Your task to perform on an android device: toggle priority inbox in the gmail app Image 0: 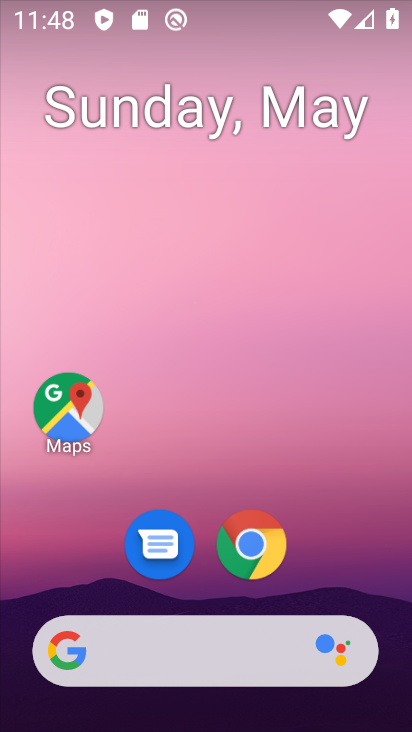
Step 0: drag from (353, 626) to (335, 1)
Your task to perform on an android device: toggle priority inbox in the gmail app Image 1: 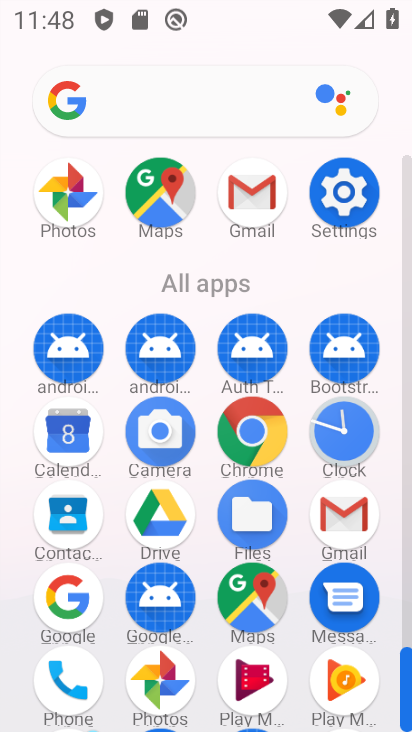
Step 1: click (355, 498)
Your task to perform on an android device: toggle priority inbox in the gmail app Image 2: 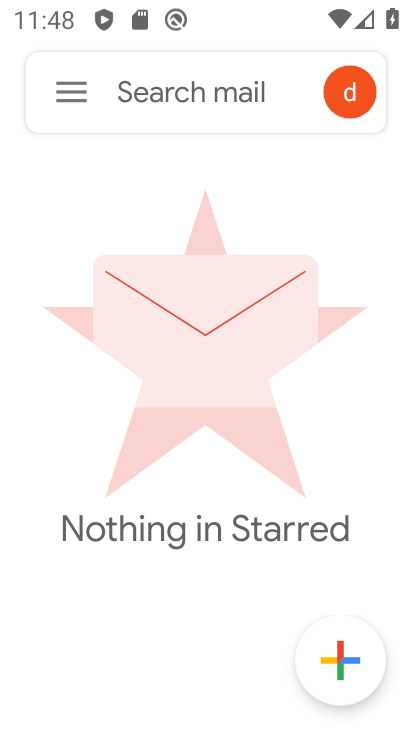
Step 2: click (77, 93)
Your task to perform on an android device: toggle priority inbox in the gmail app Image 3: 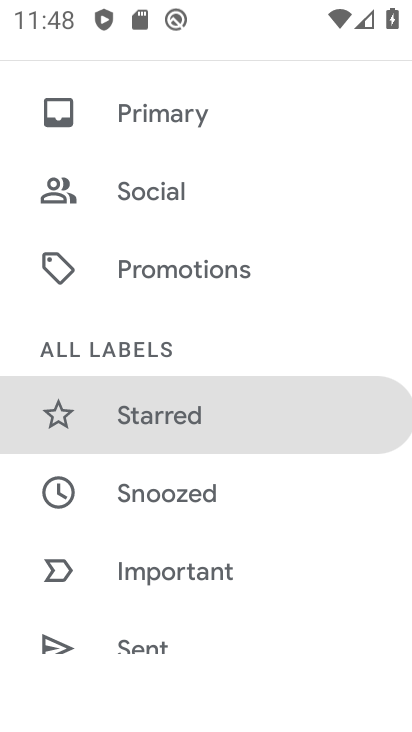
Step 3: drag from (197, 619) to (169, 47)
Your task to perform on an android device: toggle priority inbox in the gmail app Image 4: 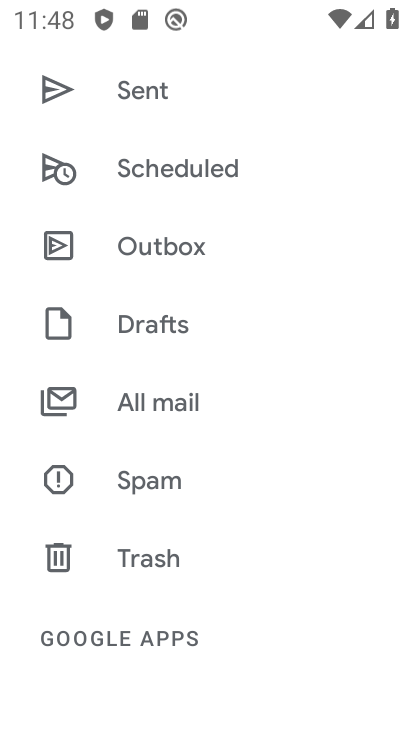
Step 4: drag from (203, 636) to (195, 258)
Your task to perform on an android device: toggle priority inbox in the gmail app Image 5: 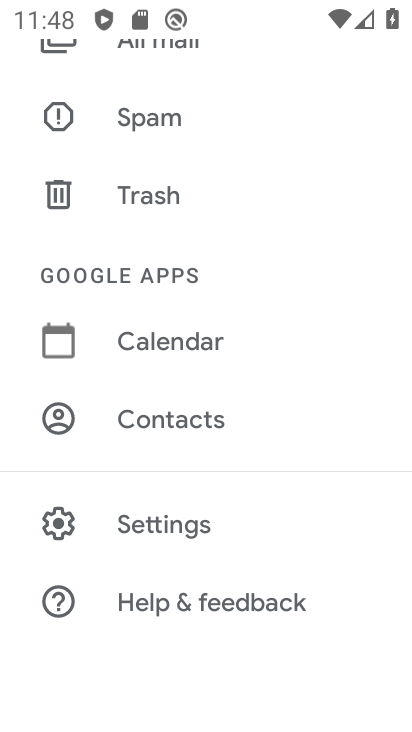
Step 5: click (194, 543)
Your task to perform on an android device: toggle priority inbox in the gmail app Image 6: 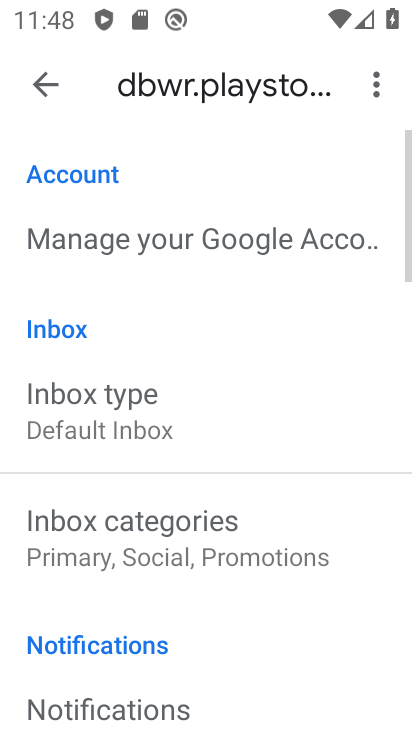
Step 6: click (147, 454)
Your task to perform on an android device: toggle priority inbox in the gmail app Image 7: 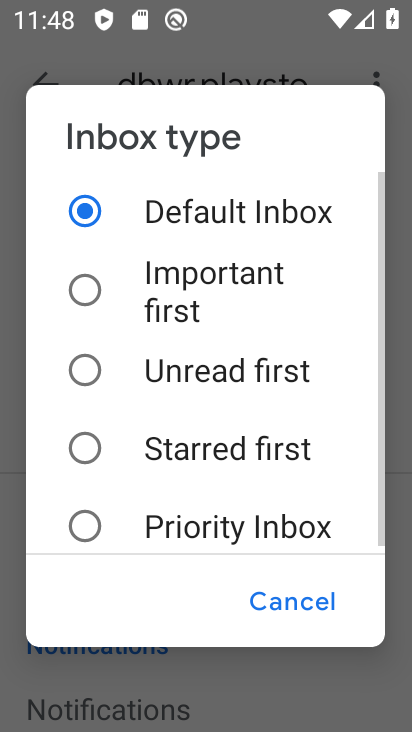
Step 7: click (104, 522)
Your task to perform on an android device: toggle priority inbox in the gmail app Image 8: 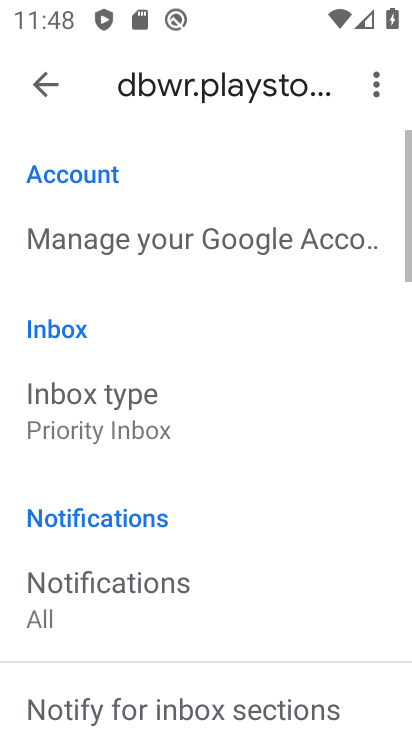
Step 8: task complete